Your task to perform on an android device: Play the last video I watched on Youtube Image 0: 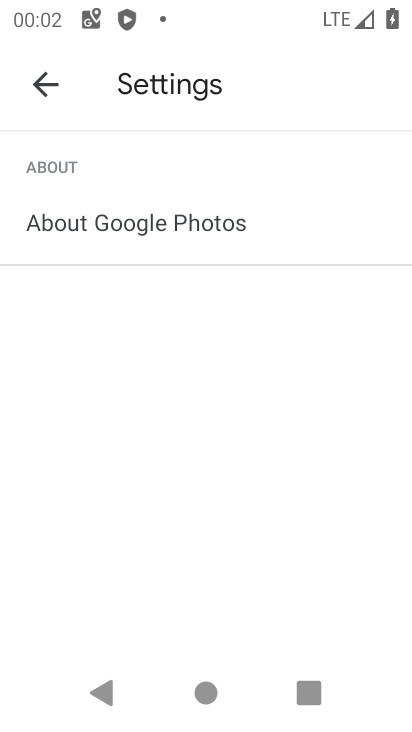
Step 0: press home button
Your task to perform on an android device: Play the last video I watched on Youtube Image 1: 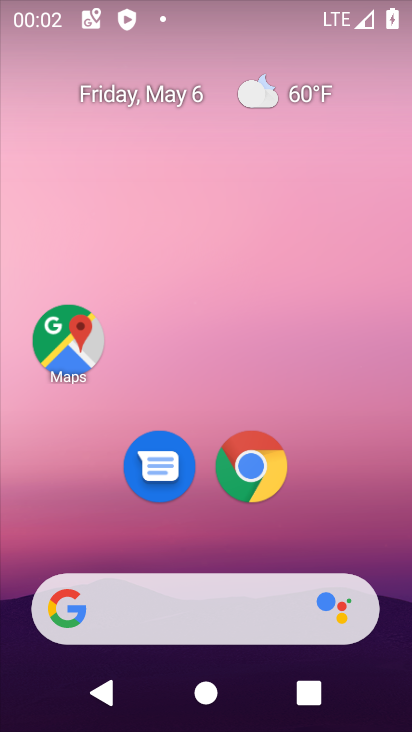
Step 1: drag from (226, 566) to (226, 176)
Your task to perform on an android device: Play the last video I watched on Youtube Image 2: 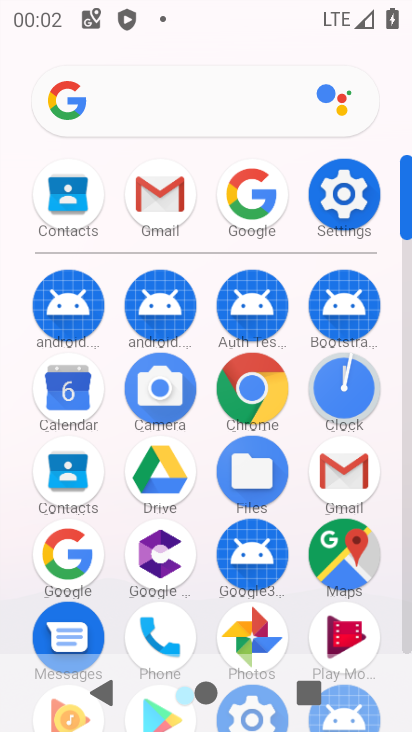
Step 2: drag from (193, 655) to (201, 272)
Your task to perform on an android device: Play the last video I watched on Youtube Image 3: 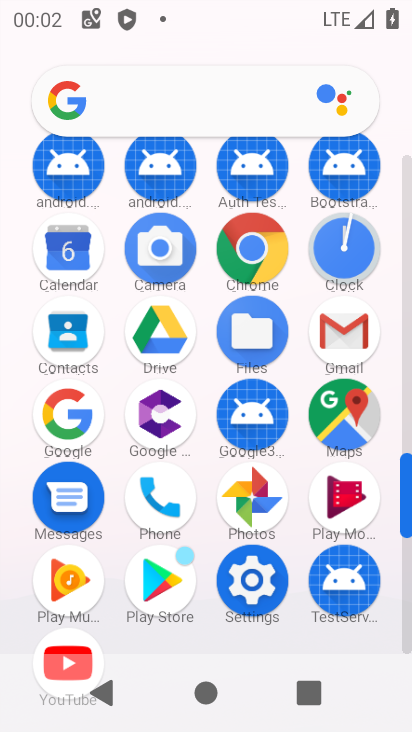
Step 3: drag from (179, 649) to (230, 344)
Your task to perform on an android device: Play the last video I watched on Youtube Image 4: 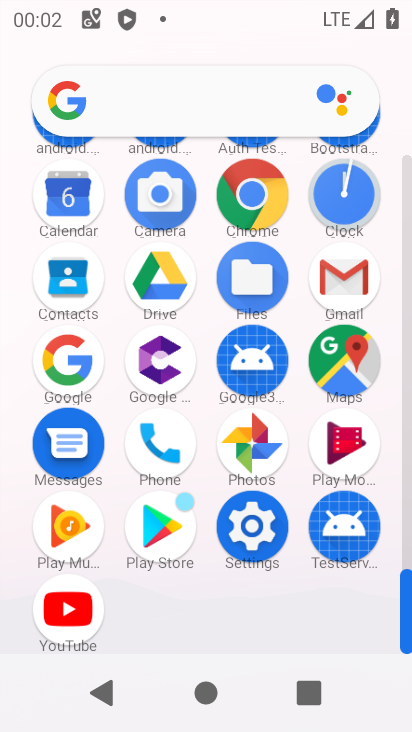
Step 4: click (67, 617)
Your task to perform on an android device: Play the last video I watched on Youtube Image 5: 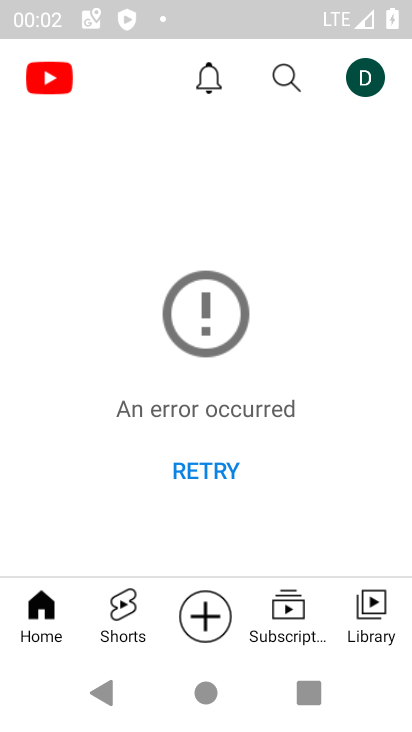
Step 5: click (371, 611)
Your task to perform on an android device: Play the last video I watched on Youtube Image 6: 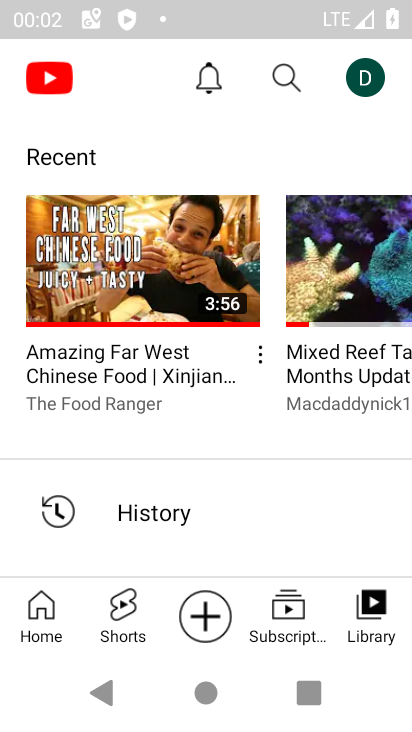
Step 6: click (152, 274)
Your task to perform on an android device: Play the last video I watched on Youtube Image 7: 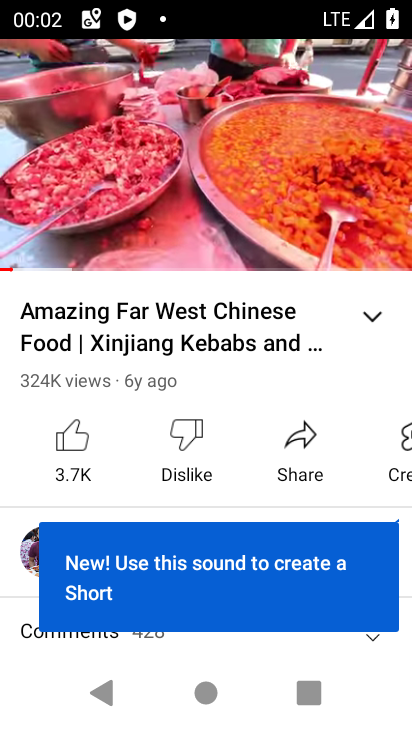
Step 7: task complete